Your task to perform on an android device: open a bookmark in the chrome app Image 0: 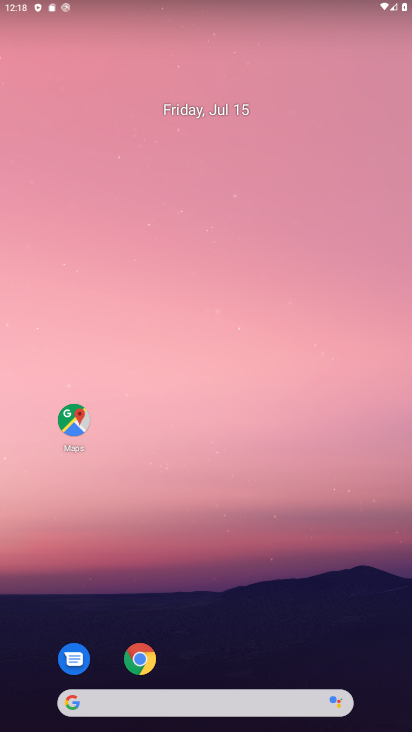
Step 0: click (151, 657)
Your task to perform on an android device: open a bookmark in the chrome app Image 1: 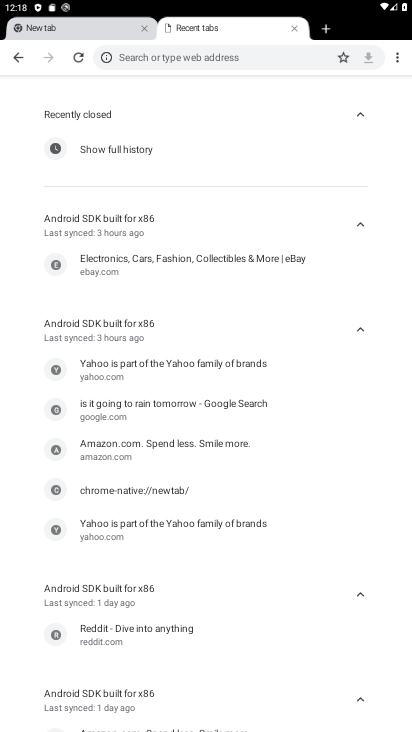
Step 1: click (391, 59)
Your task to perform on an android device: open a bookmark in the chrome app Image 2: 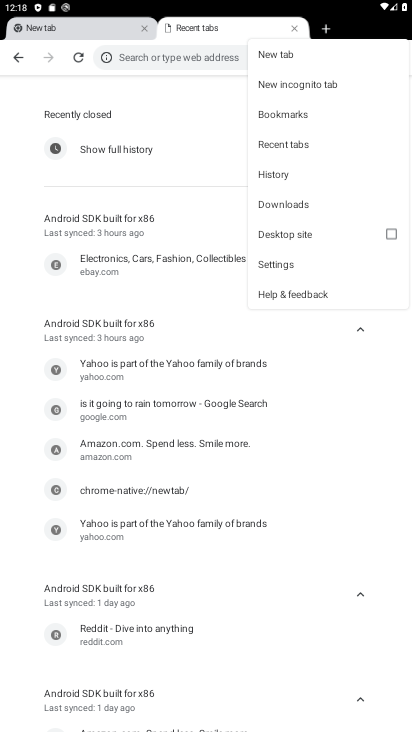
Step 2: click (315, 118)
Your task to perform on an android device: open a bookmark in the chrome app Image 3: 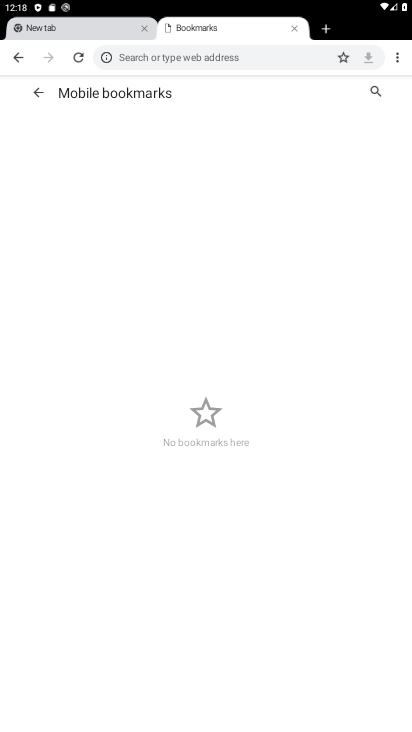
Step 3: task complete